Your task to perform on an android device: find snoozed emails in the gmail app Image 0: 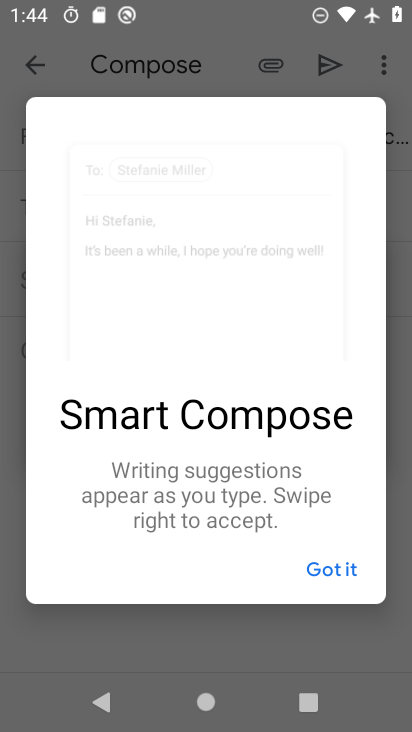
Step 0: press home button
Your task to perform on an android device: find snoozed emails in the gmail app Image 1: 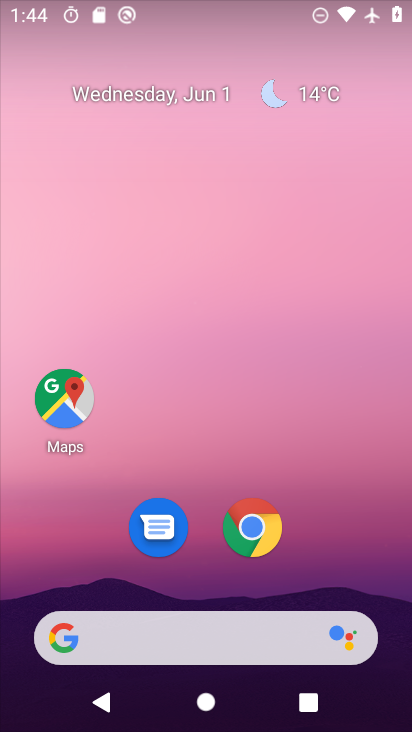
Step 1: drag from (193, 583) to (218, 158)
Your task to perform on an android device: find snoozed emails in the gmail app Image 2: 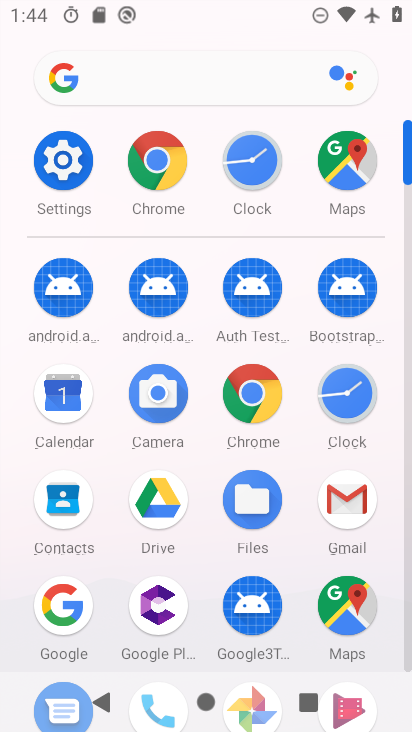
Step 2: click (366, 501)
Your task to perform on an android device: find snoozed emails in the gmail app Image 3: 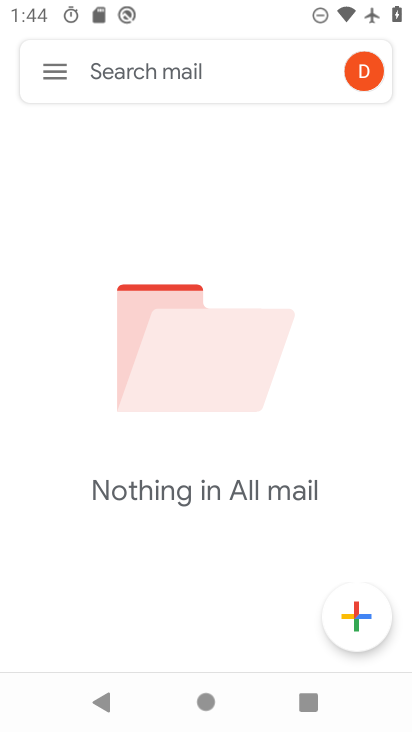
Step 3: click (58, 70)
Your task to perform on an android device: find snoozed emails in the gmail app Image 4: 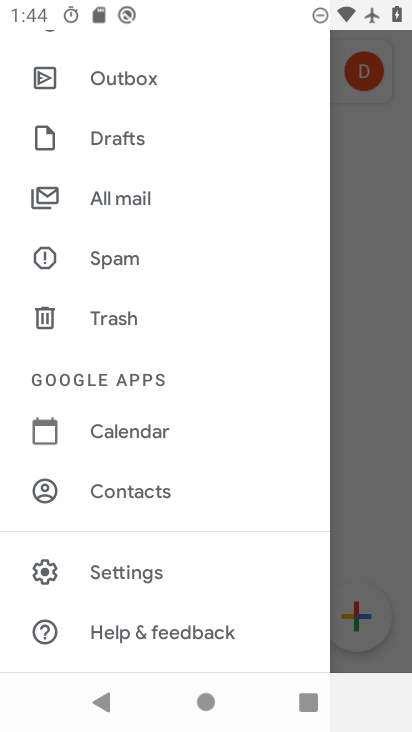
Step 4: drag from (132, 206) to (121, 671)
Your task to perform on an android device: find snoozed emails in the gmail app Image 5: 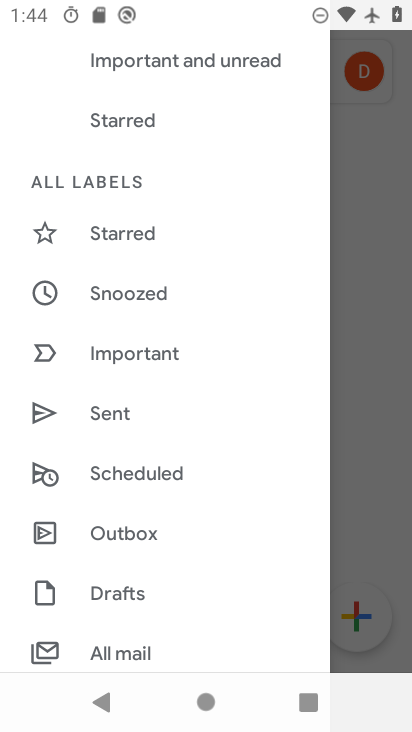
Step 5: click (128, 292)
Your task to perform on an android device: find snoozed emails in the gmail app Image 6: 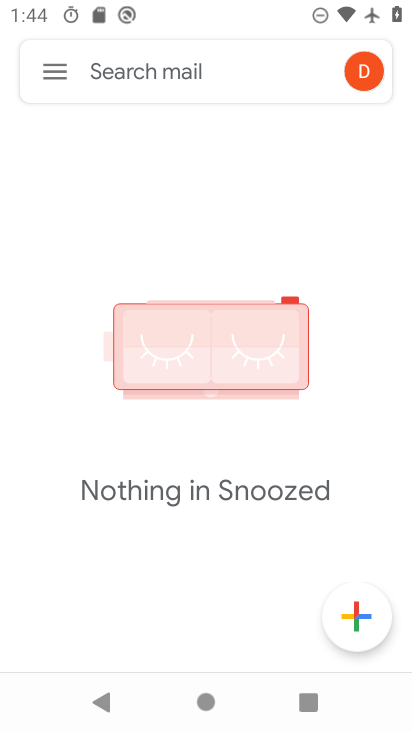
Step 6: task complete